Your task to perform on an android device: uninstall "Google Maps" Image 0: 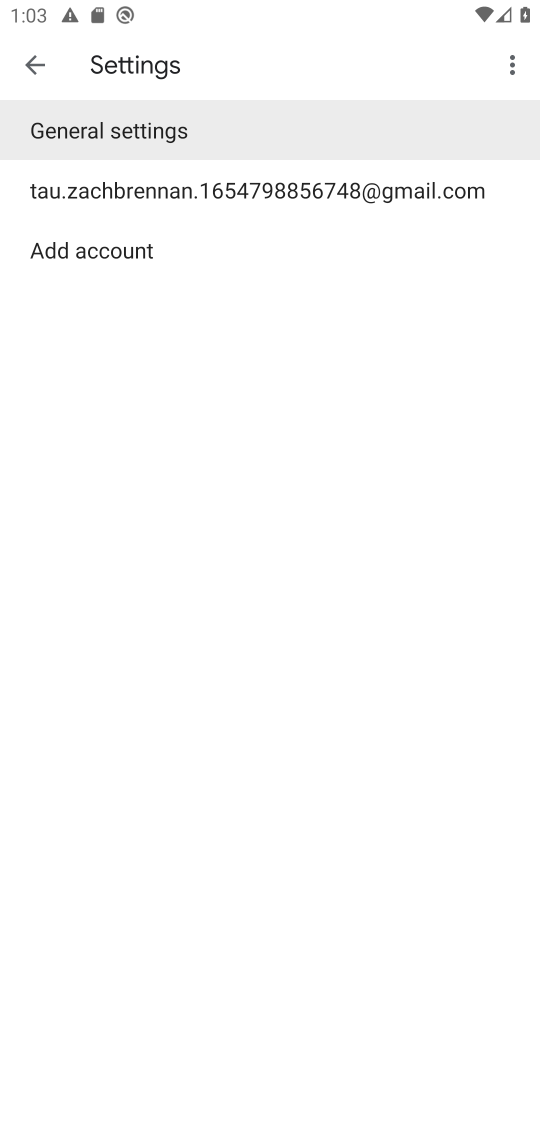
Step 0: press home button
Your task to perform on an android device: uninstall "Google Maps" Image 1: 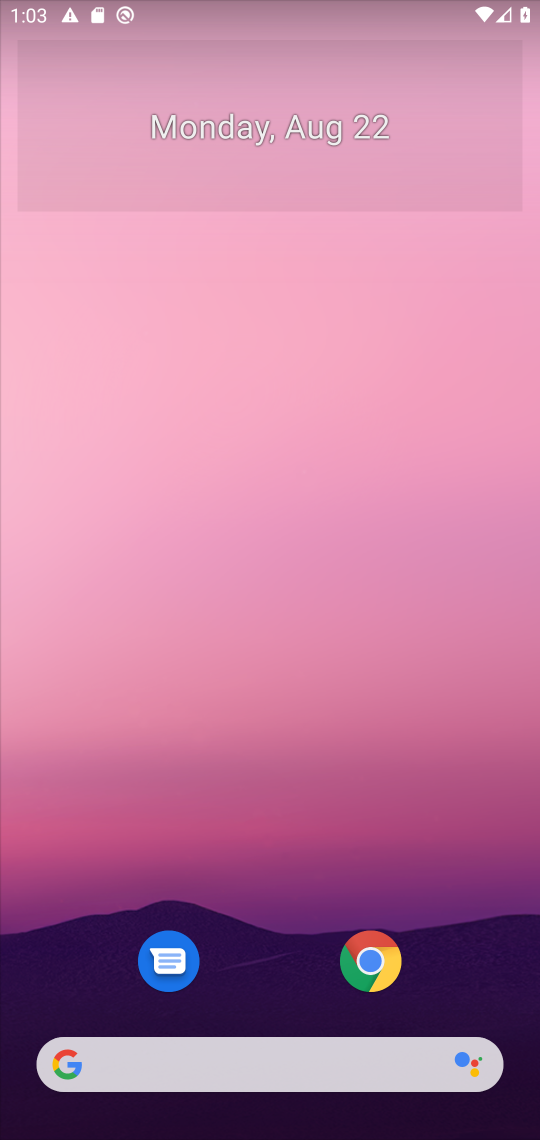
Step 1: drag from (472, 952) to (422, 163)
Your task to perform on an android device: uninstall "Google Maps" Image 2: 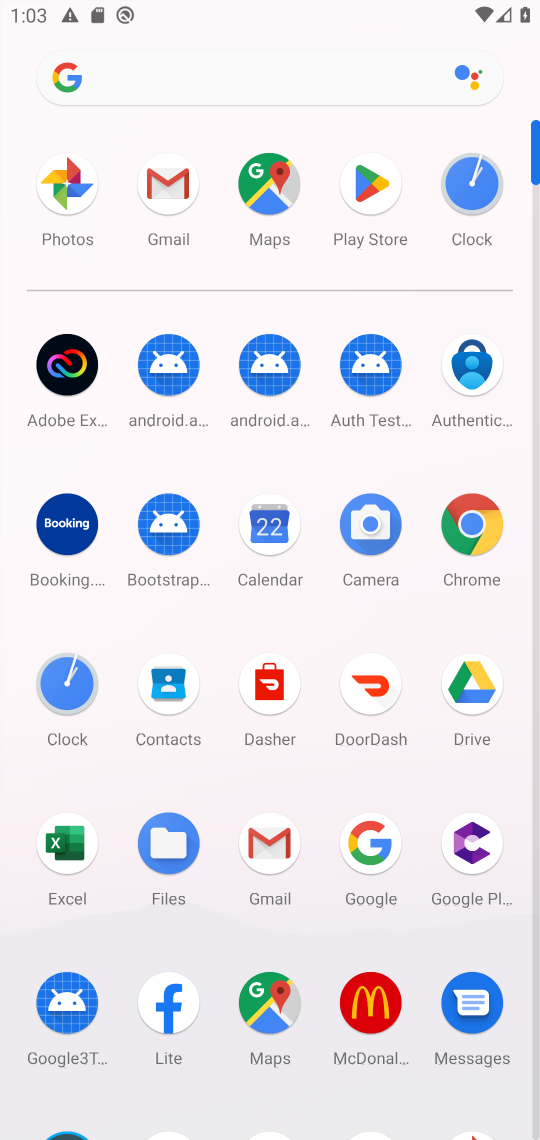
Step 2: click (363, 197)
Your task to perform on an android device: uninstall "Google Maps" Image 3: 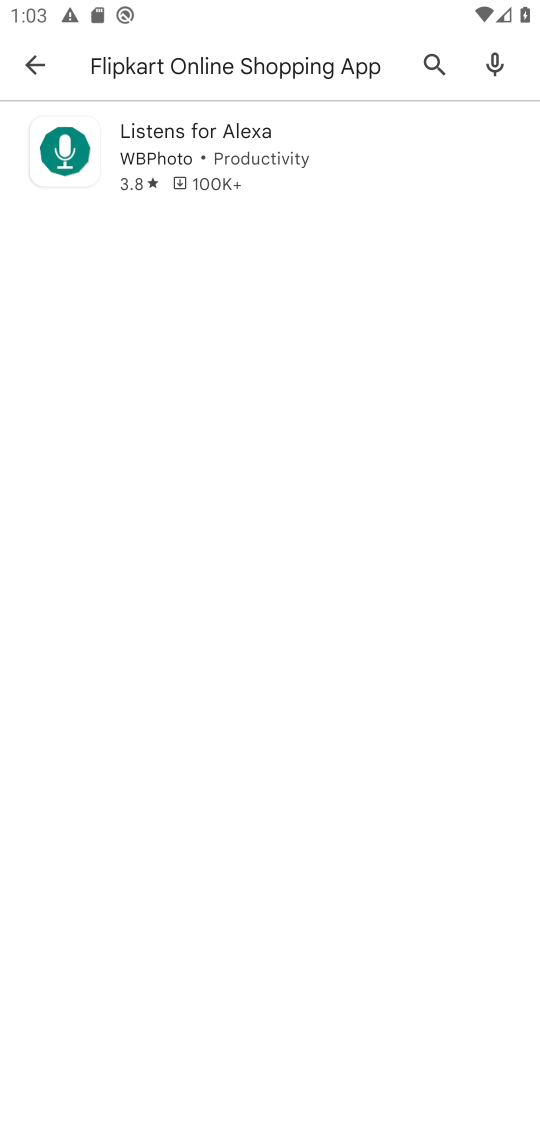
Step 3: press back button
Your task to perform on an android device: uninstall "Google Maps" Image 4: 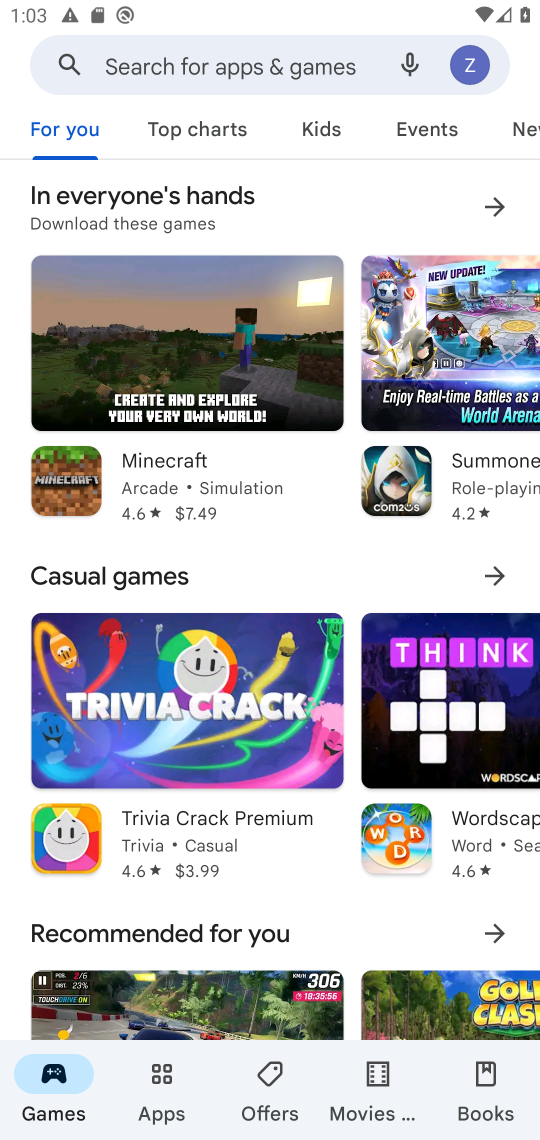
Step 4: click (279, 56)
Your task to perform on an android device: uninstall "Google Maps" Image 5: 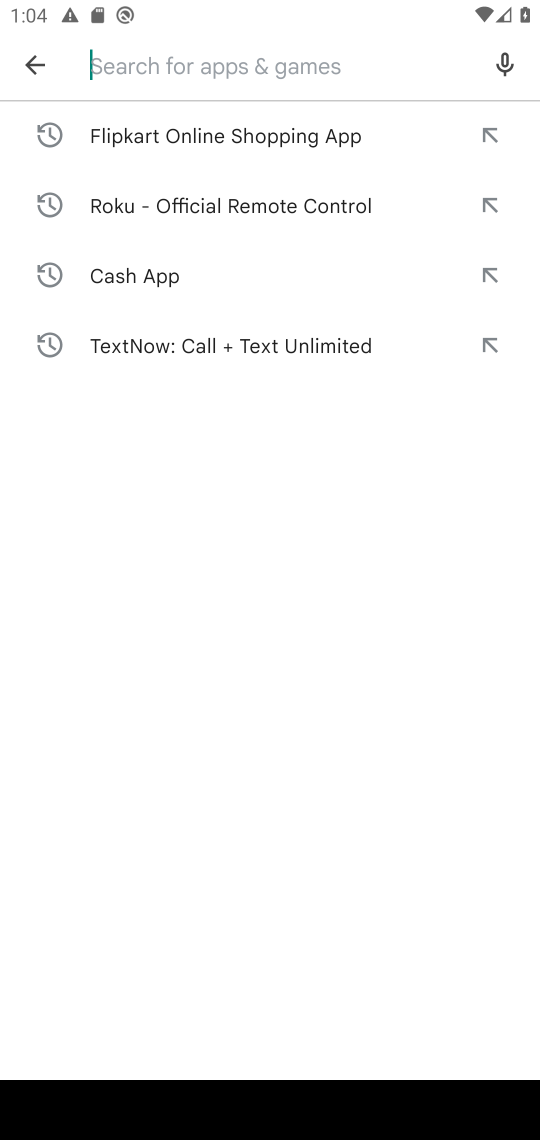
Step 5: press enter
Your task to perform on an android device: uninstall "Google Maps" Image 6: 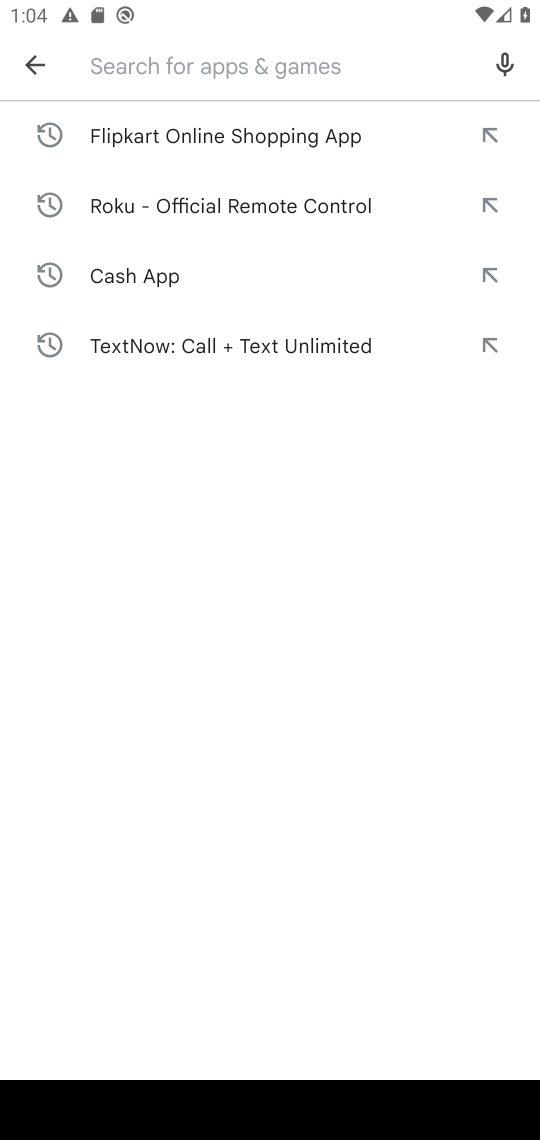
Step 6: type "google maps"
Your task to perform on an android device: uninstall "Google Maps" Image 7: 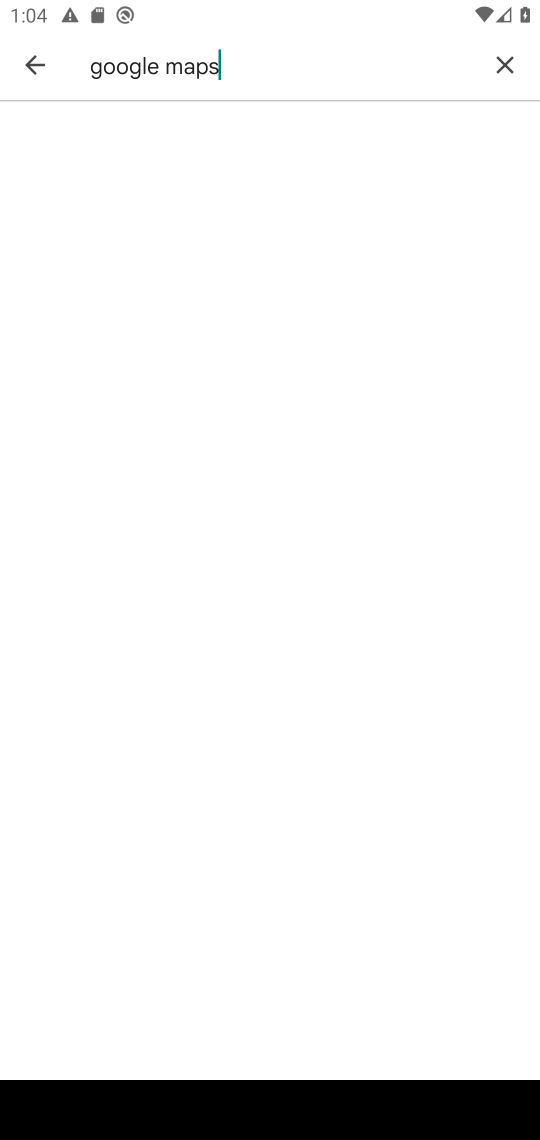
Step 7: task complete